Your task to perform on an android device: Search for custom wallets on Etsy. Image 0: 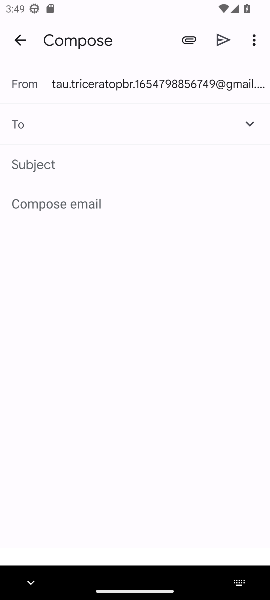
Step 0: press home button
Your task to perform on an android device: Search for custom wallets on Etsy. Image 1: 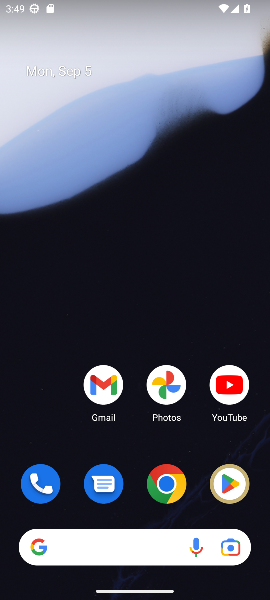
Step 1: click (160, 485)
Your task to perform on an android device: Search for custom wallets on Etsy. Image 2: 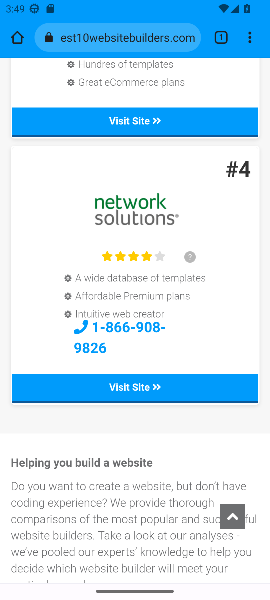
Step 2: click (135, 43)
Your task to perform on an android device: Search for custom wallets on Etsy. Image 3: 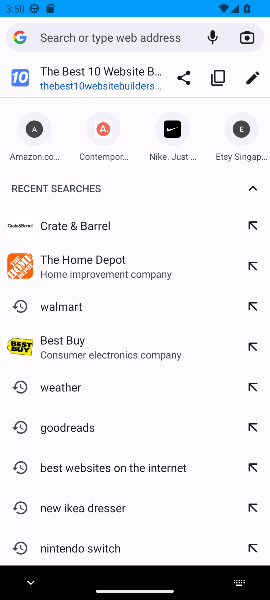
Step 3: type "Etsy"
Your task to perform on an android device: Search for custom wallets on Etsy. Image 4: 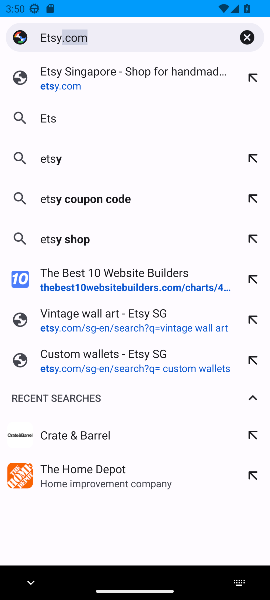
Step 4: press enter
Your task to perform on an android device: Search for custom wallets on Etsy. Image 5: 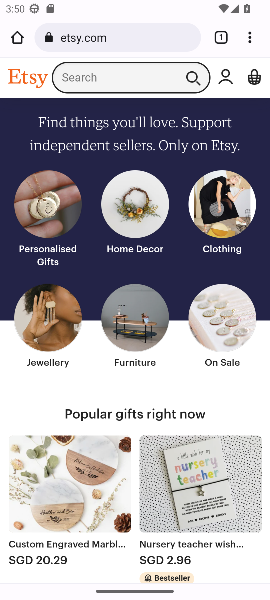
Step 5: click (119, 76)
Your task to perform on an android device: Search for custom wallets on Etsy. Image 6: 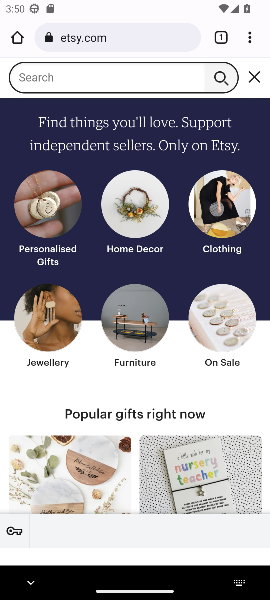
Step 6: type "custom wallets"
Your task to perform on an android device: Search for custom wallets on Etsy. Image 7: 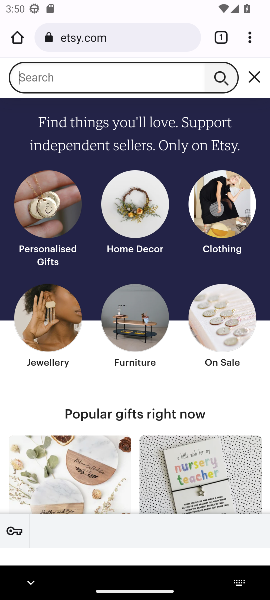
Step 7: press enter
Your task to perform on an android device: Search for custom wallets on Etsy. Image 8: 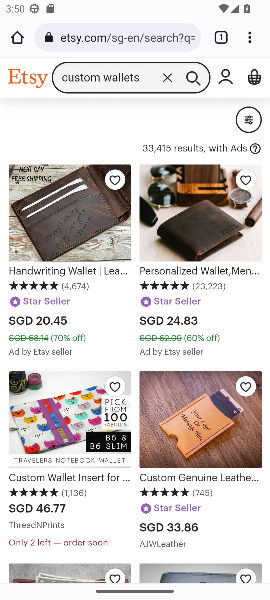
Step 8: task complete